Your task to perform on an android device: set default search engine in the chrome app Image 0: 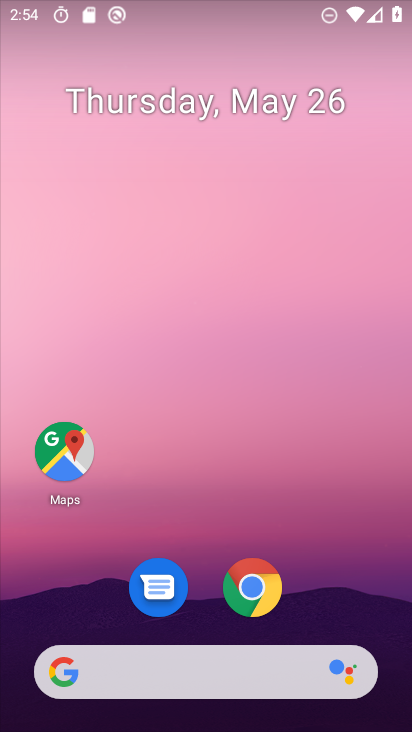
Step 0: click (258, 592)
Your task to perform on an android device: set default search engine in the chrome app Image 1: 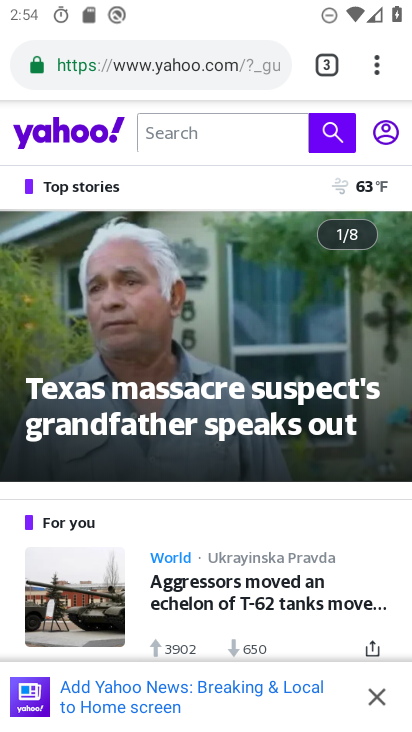
Step 1: click (380, 58)
Your task to perform on an android device: set default search engine in the chrome app Image 2: 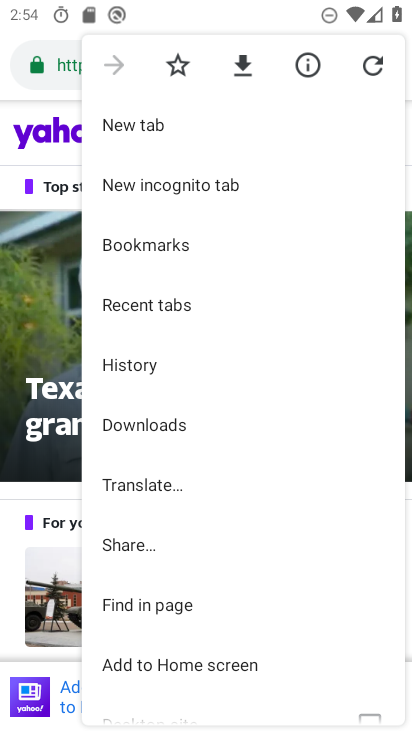
Step 2: drag from (189, 640) to (232, 218)
Your task to perform on an android device: set default search engine in the chrome app Image 3: 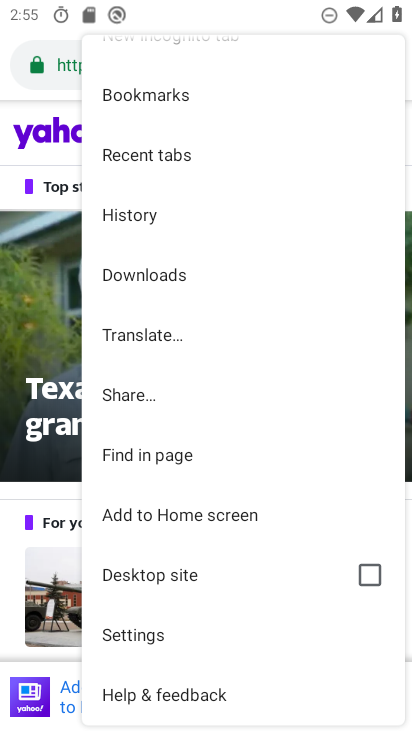
Step 3: click (130, 634)
Your task to perform on an android device: set default search engine in the chrome app Image 4: 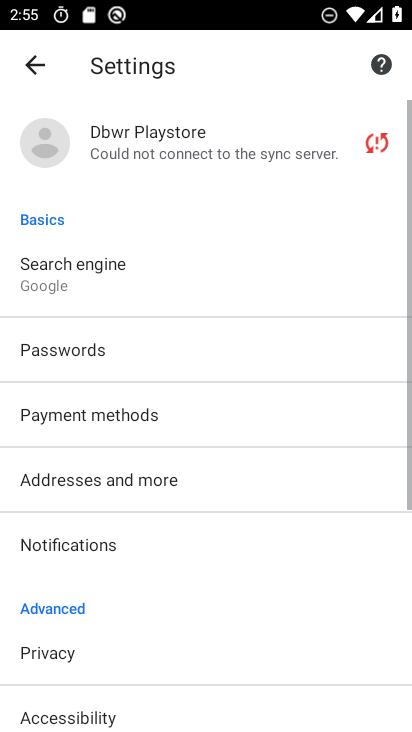
Step 4: click (69, 260)
Your task to perform on an android device: set default search engine in the chrome app Image 5: 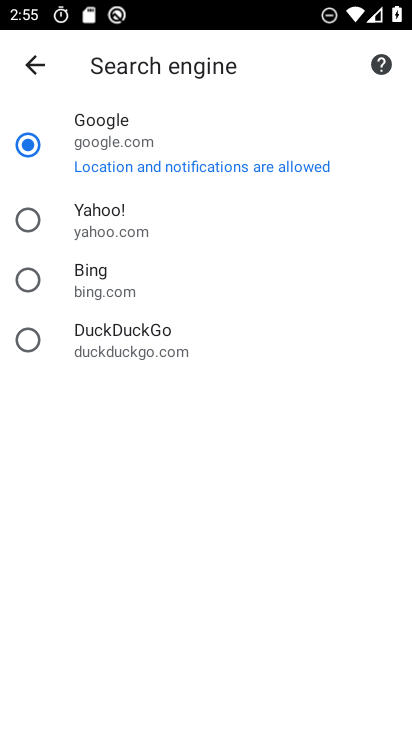
Step 5: task complete